Your task to perform on an android device: Open Yahoo.com Image 0: 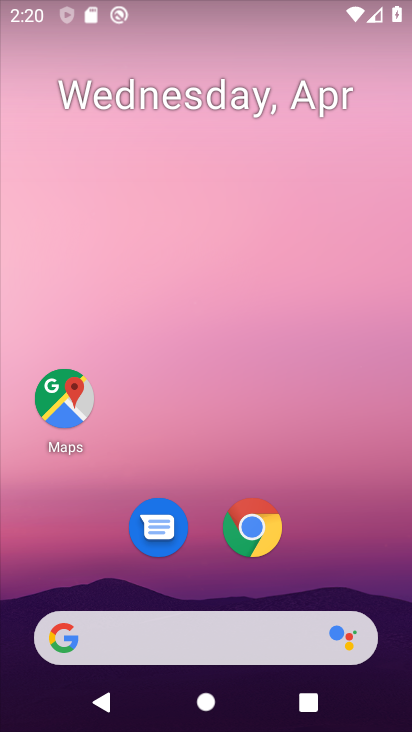
Step 0: drag from (248, 495) to (222, 129)
Your task to perform on an android device: Open Yahoo.com Image 1: 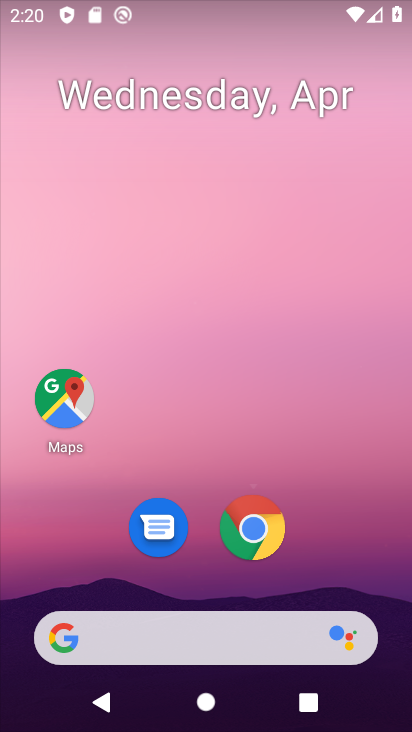
Step 1: drag from (222, 497) to (292, 87)
Your task to perform on an android device: Open Yahoo.com Image 2: 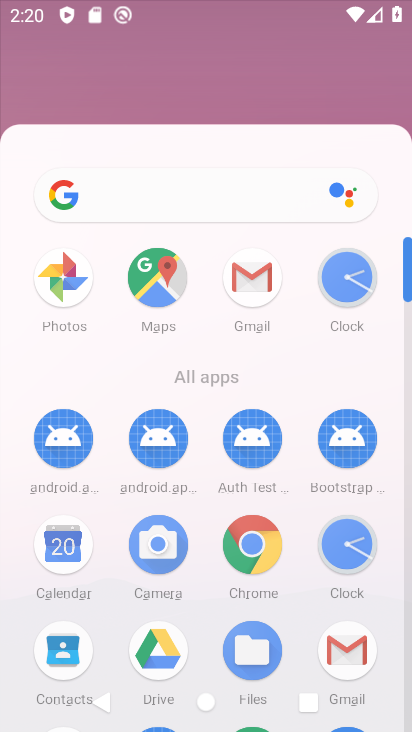
Step 2: click (247, 194)
Your task to perform on an android device: Open Yahoo.com Image 3: 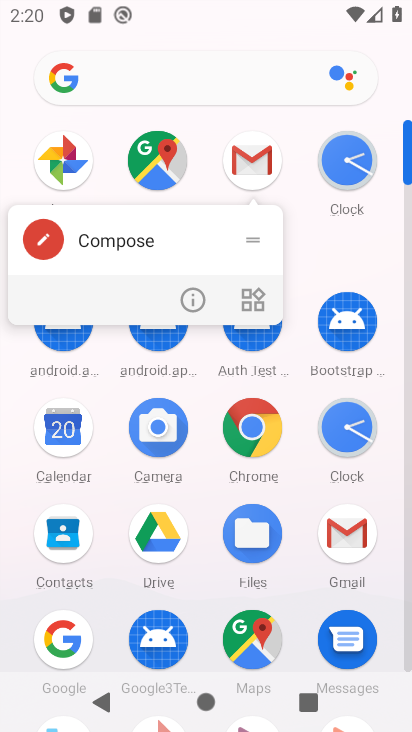
Step 3: click (263, 429)
Your task to perform on an android device: Open Yahoo.com Image 4: 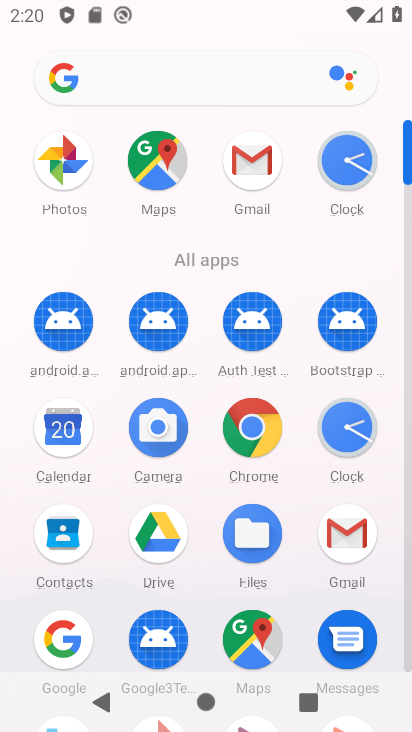
Step 4: click (263, 429)
Your task to perform on an android device: Open Yahoo.com Image 5: 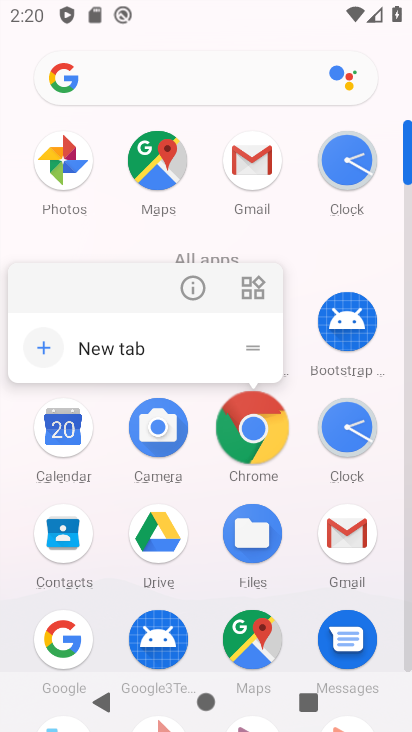
Step 5: click (263, 429)
Your task to perform on an android device: Open Yahoo.com Image 6: 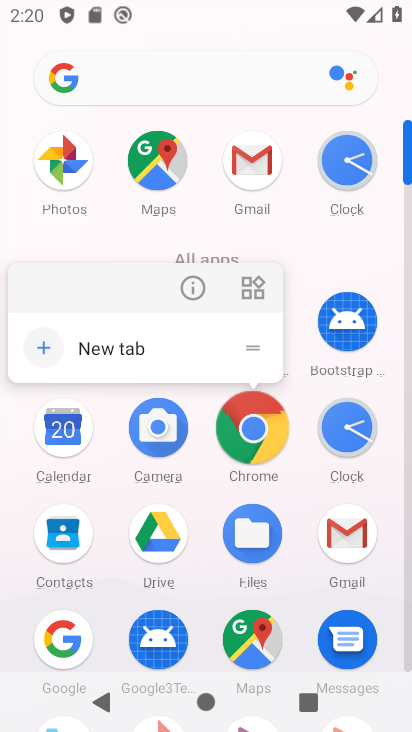
Step 6: click (262, 430)
Your task to perform on an android device: Open Yahoo.com Image 7: 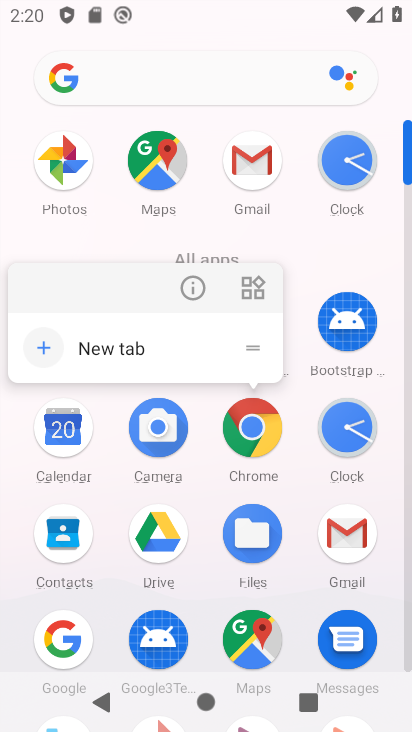
Step 7: click (262, 430)
Your task to perform on an android device: Open Yahoo.com Image 8: 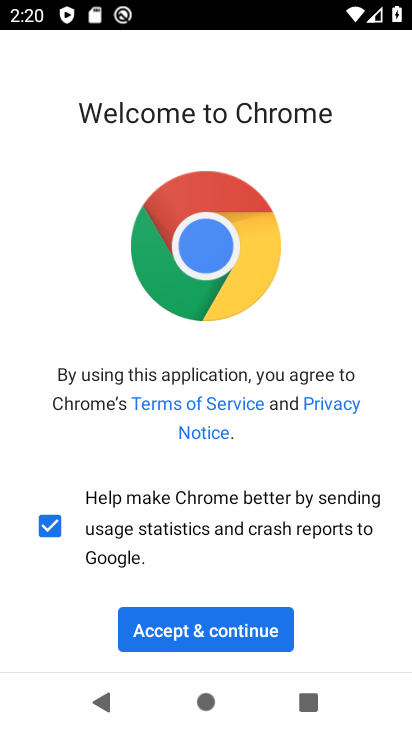
Step 8: click (221, 634)
Your task to perform on an android device: Open Yahoo.com Image 9: 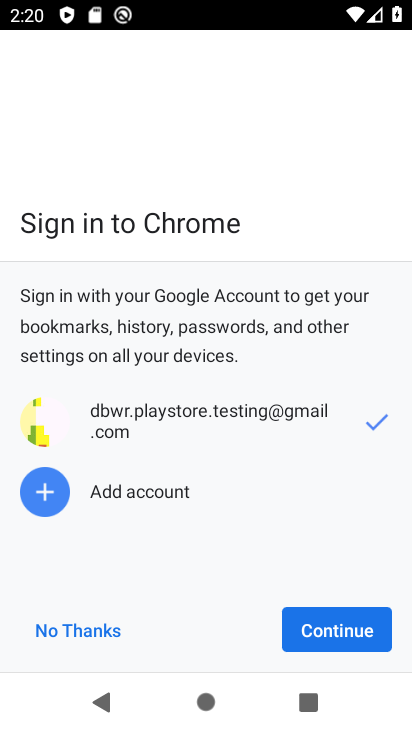
Step 9: click (345, 631)
Your task to perform on an android device: Open Yahoo.com Image 10: 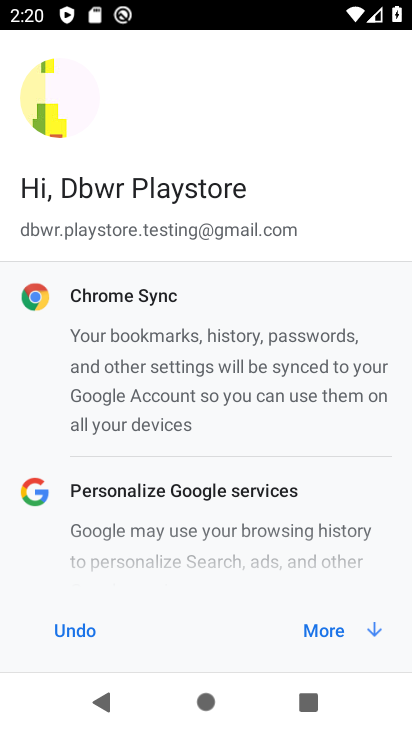
Step 10: click (347, 627)
Your task to perform on an android device: Open Yahoo.com Image 11: 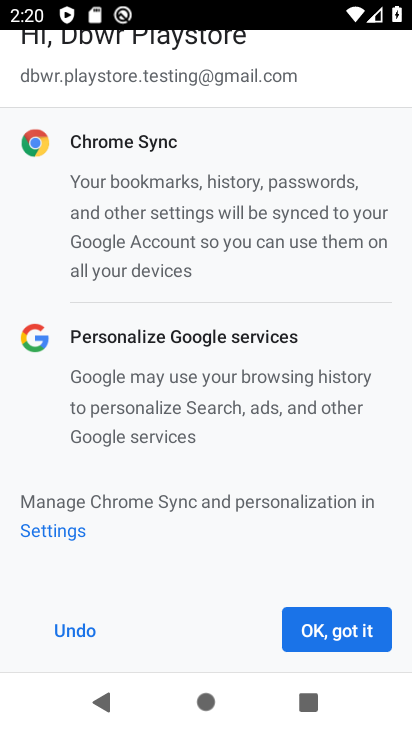
Step 11: click (347, 627)
Your task to perform on an android device: Open Yahoo.com Image 12: 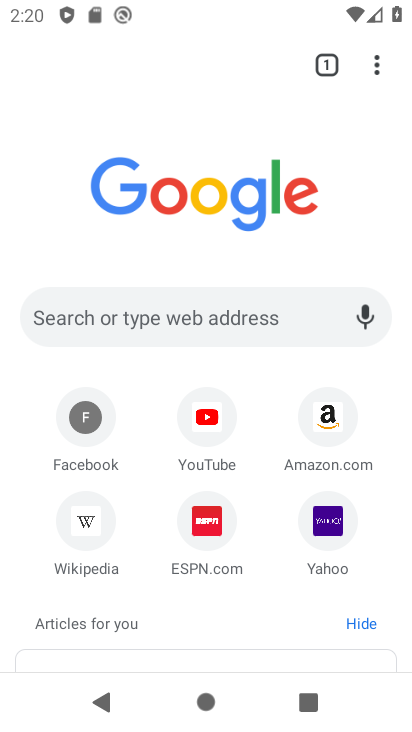
Step 12: click (329, 532)
Your task to perform on an android device: Open Yahoo.com Image 13: 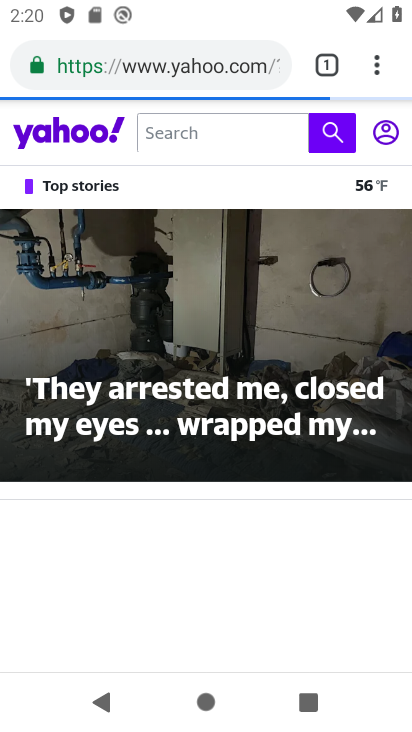
Step 13: task complete